Your task to perform on an android device: open wifi settings Image 0: 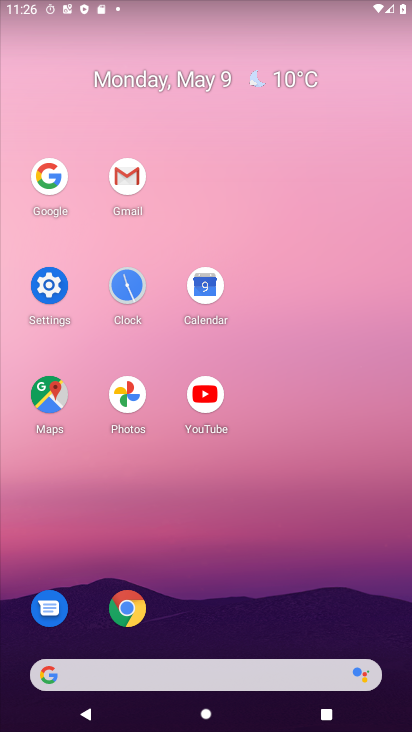
Step 0: click (43, 283)
Your task to perform on an android device: open wifi settings Image 1: 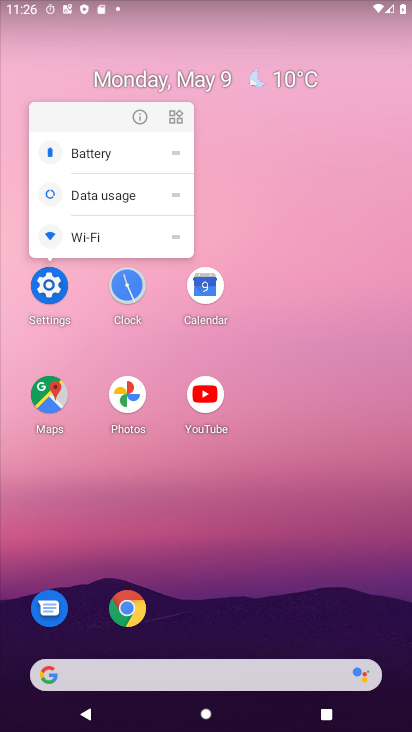
Step 1: click (103, 245)
Your task to perform on an android device: open wifi settings Image 2: 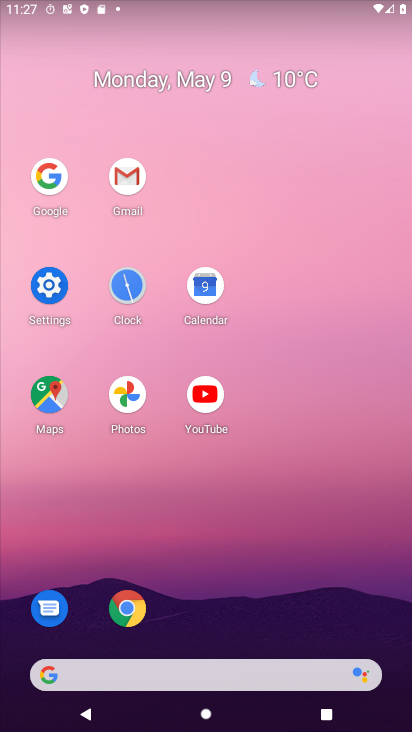
Step 2: click (37, 284)
Your task to perform on an android device: open wifi settings Image 3: 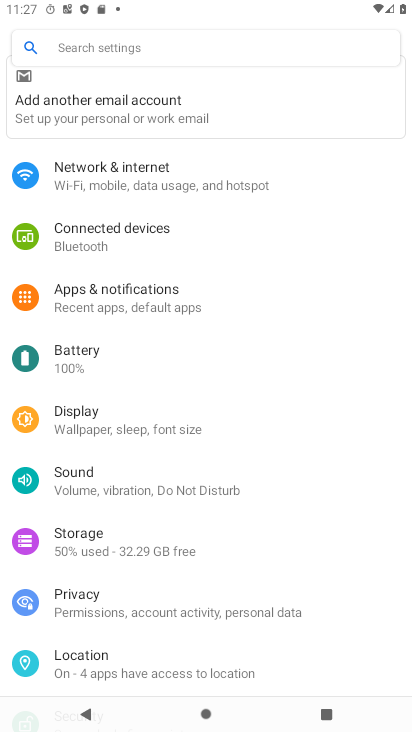
Step 3: click (260, 187)
Your task to perform on an android device: open wifi settings Image 4: 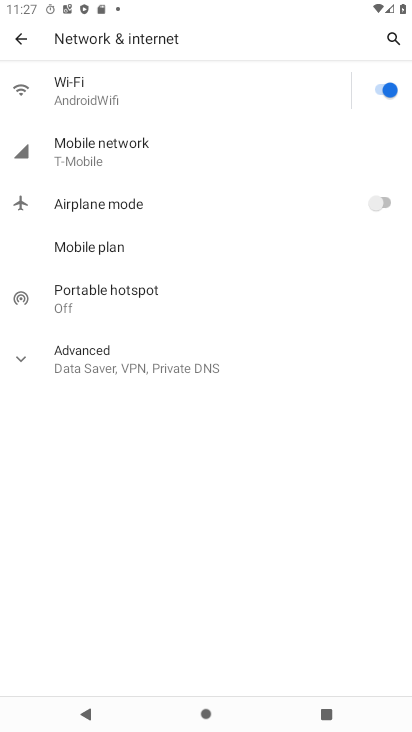
Step 4: click (243, 88)
Your task to perform on an android device: open wifi settings Image 5: 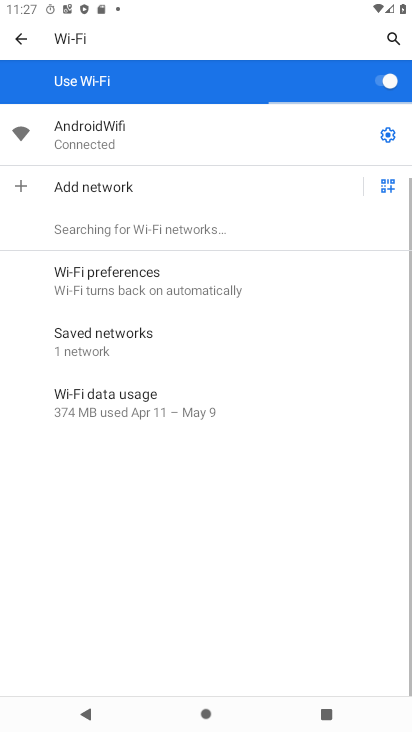
Step 5: click (384, 134)
Your task to perform on an android device: open wifi settings Image 6: 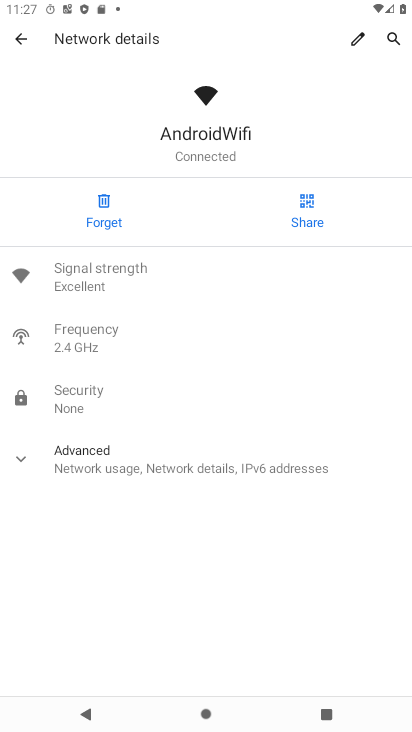
Step 6: task complete